Your task to perform on an android device: Add logitech g933 to the cart on target.com, then select checkout. Image 0: 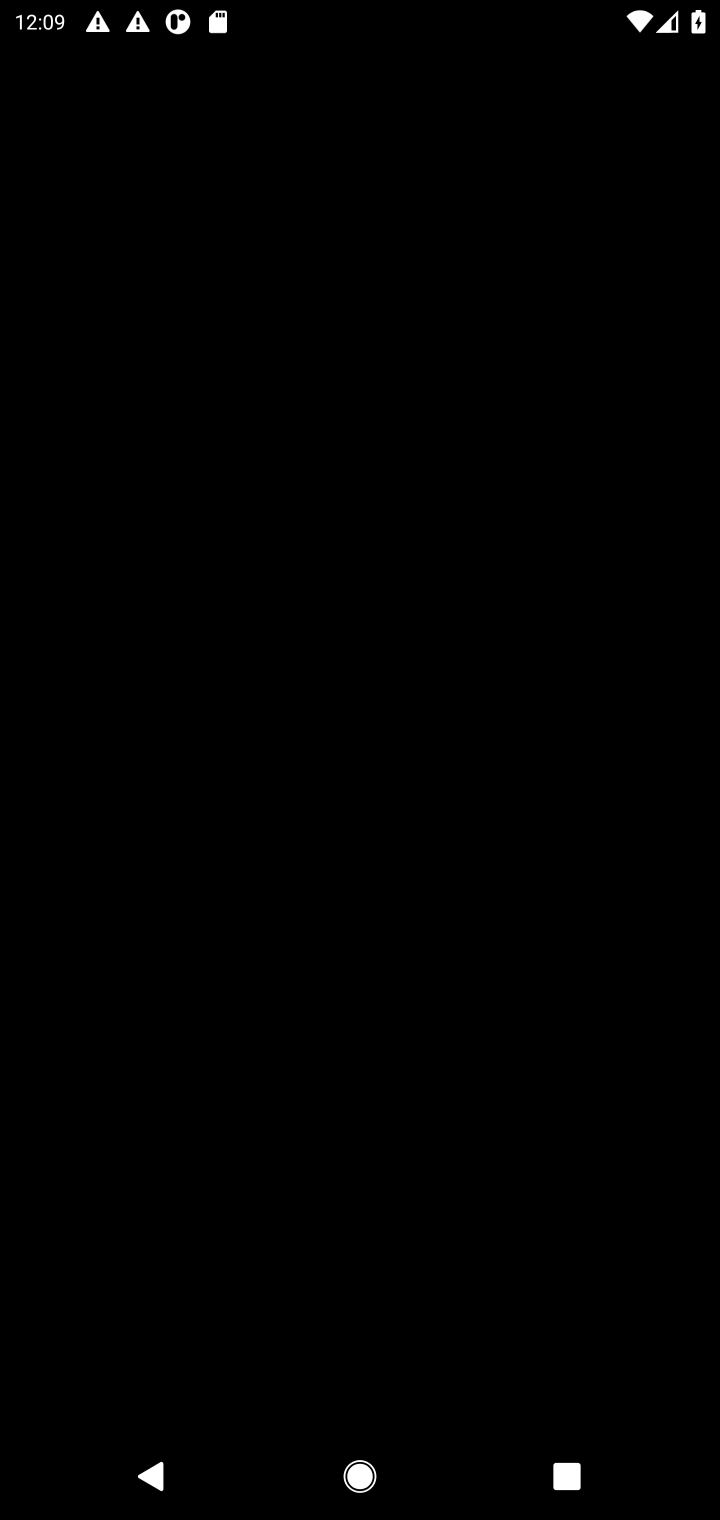
Step 0: press home button
Your task to perform on an android device: Add logitech g933 to the cart on target.com, then select checkout. Image 1: 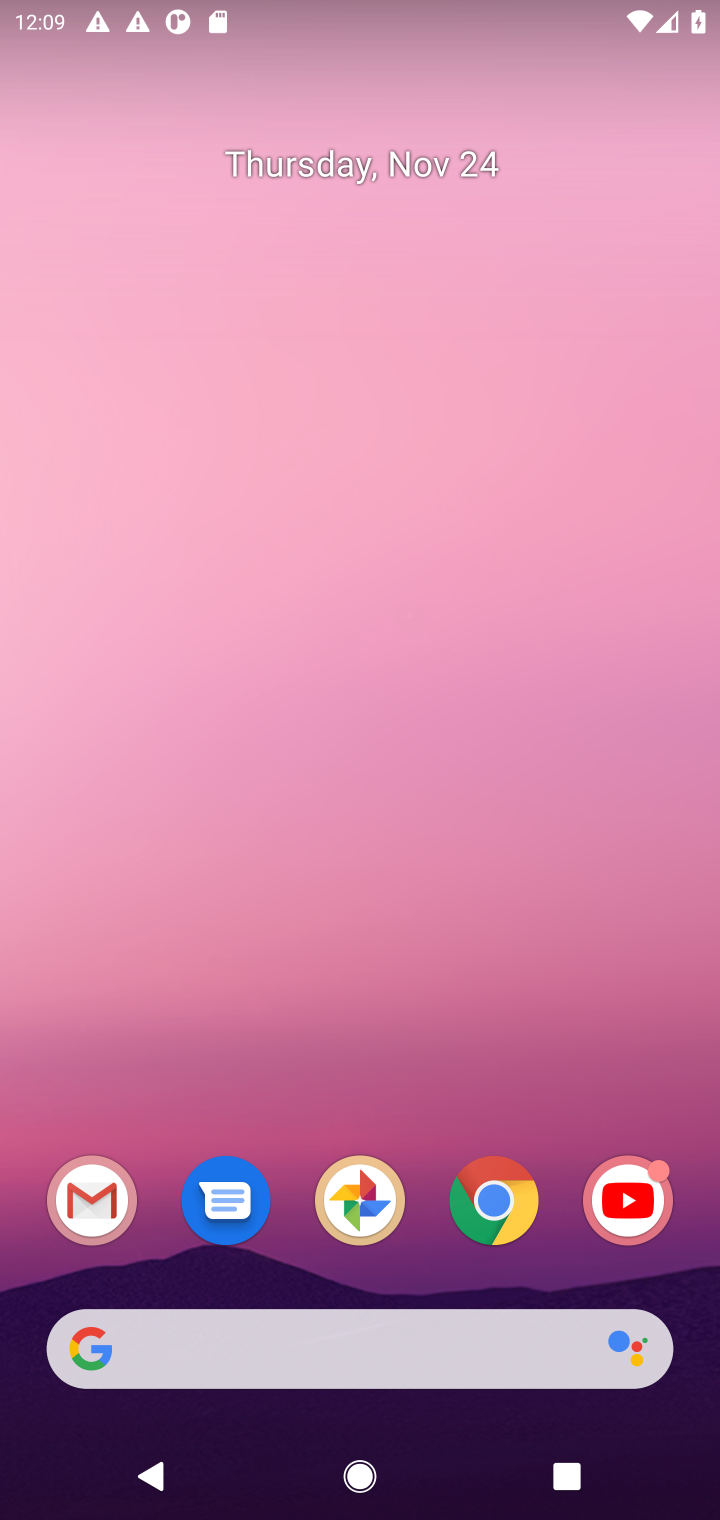
Step 1: click (469, 1358)
Your task to perform on an android device: Add logitech g933 to the cart on target.com, then select checkout. Image 2: 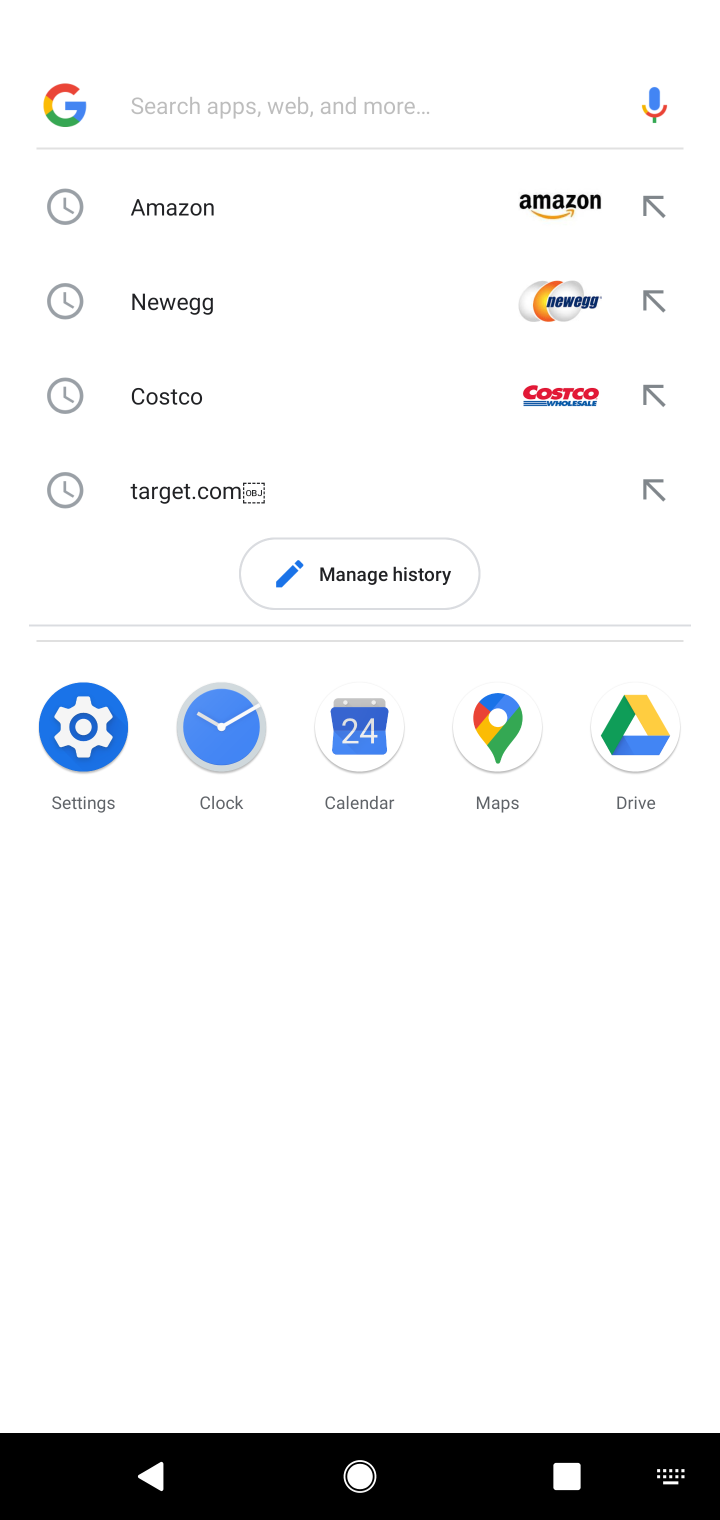
Step 2: click (217, 499)
Your task to perform on an android device: Add logitech g933 to the cart on target.com, then select checkout. Image 3: 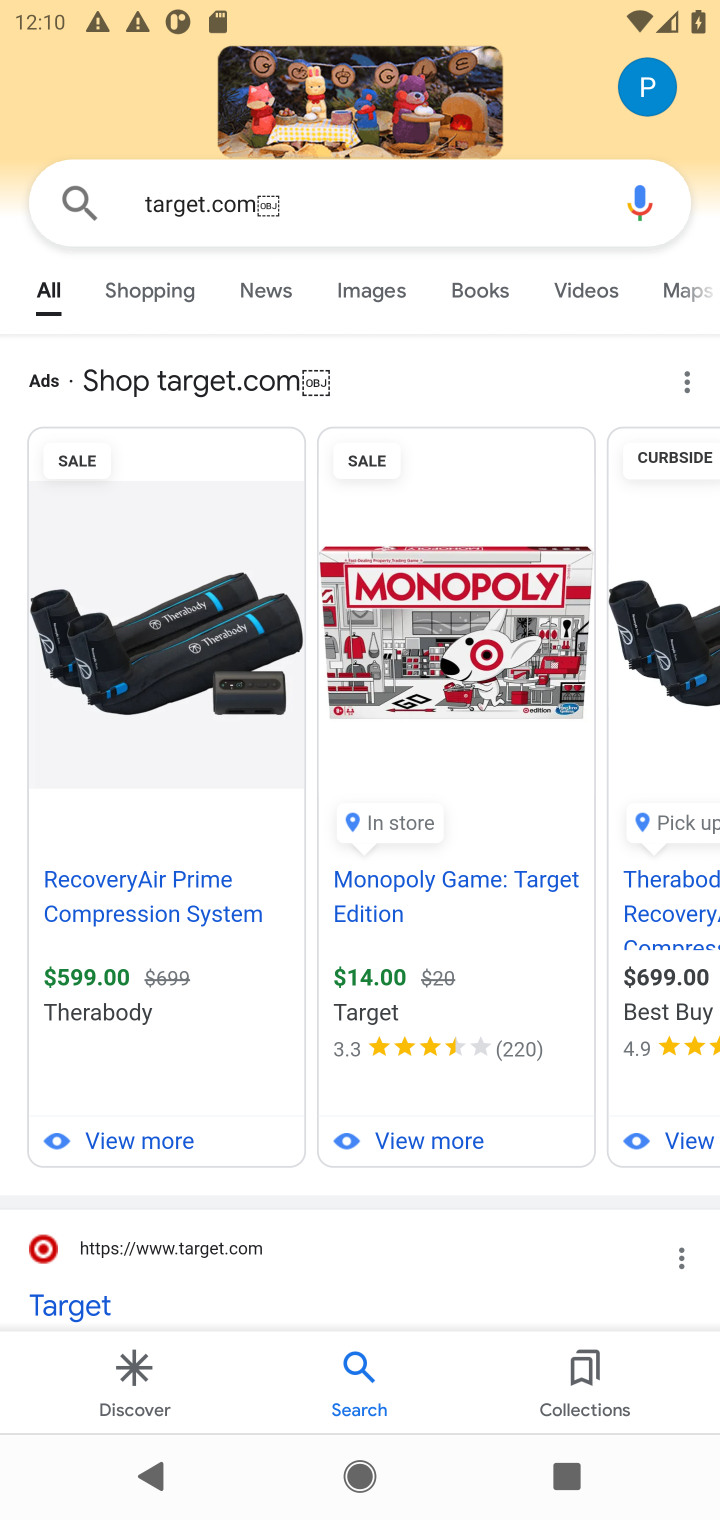
Step 3: click (104, 1292)
Your task to perform on an android device: Add logitech g933 to the cart on target.com, then select checkout. Image 4: 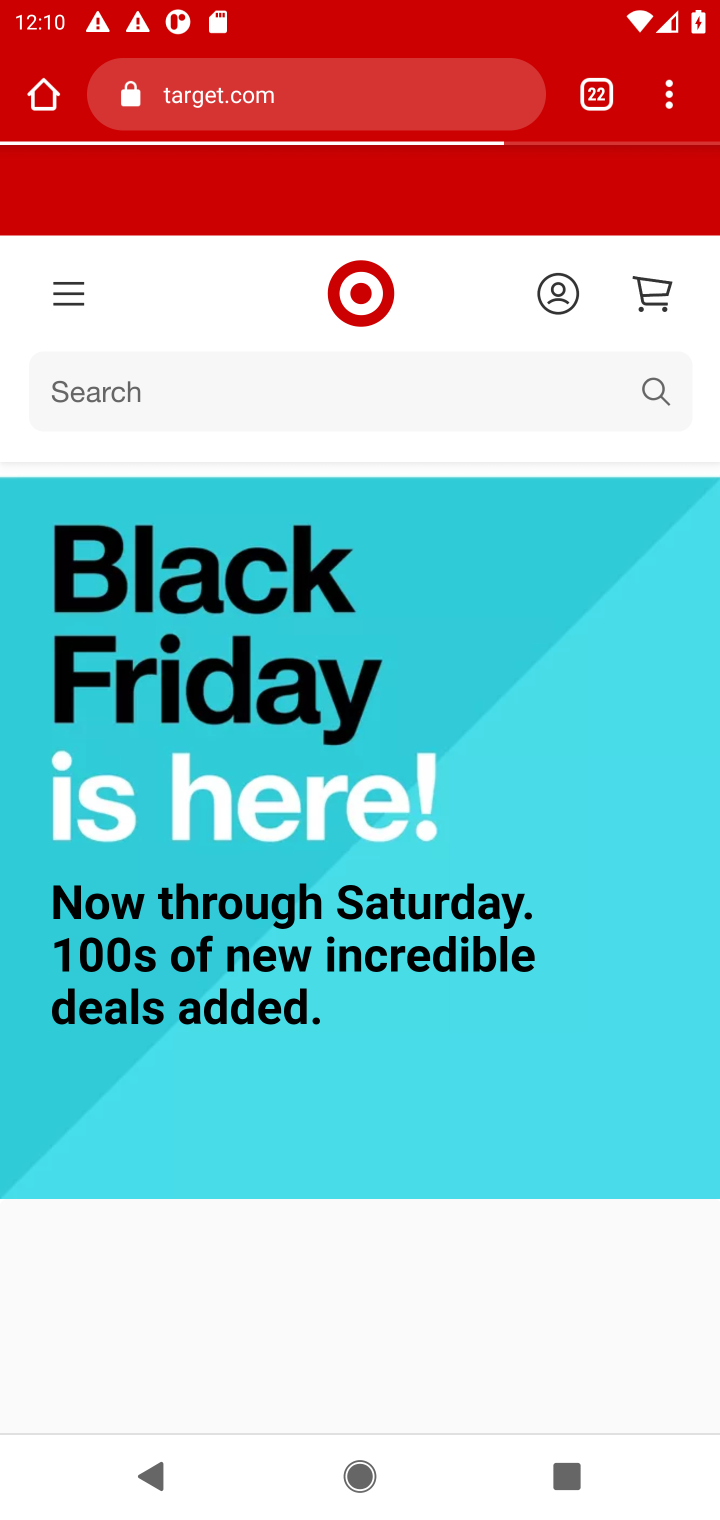
Step 4: click (468, 389)
Your task to perform on an android device: Add logitech g933 to the cart on target.com, then select checkout. Image 5: 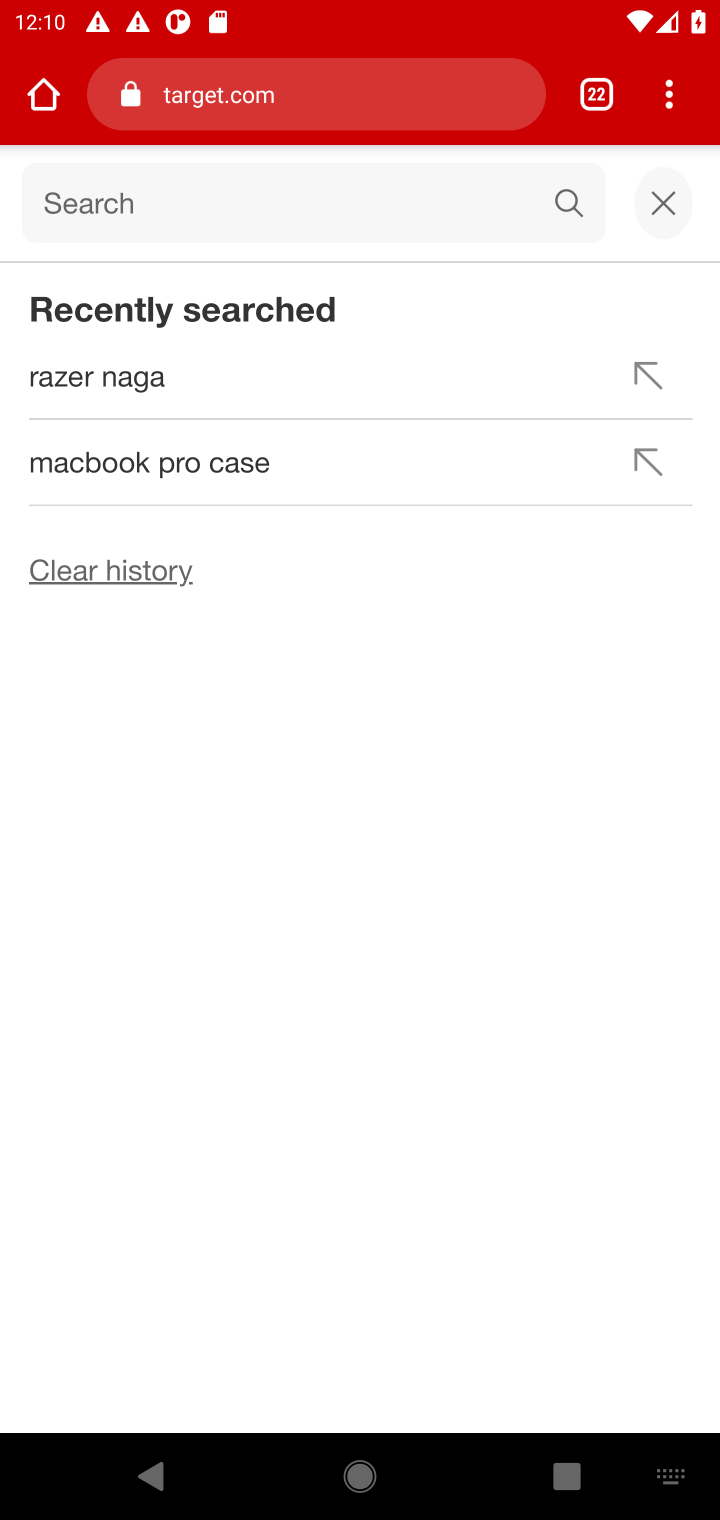
Step 5: type "logitech g933"
Your task to perform on an android device: Add logitech g933 to the cart on target.com, then select checkout. Image 6: 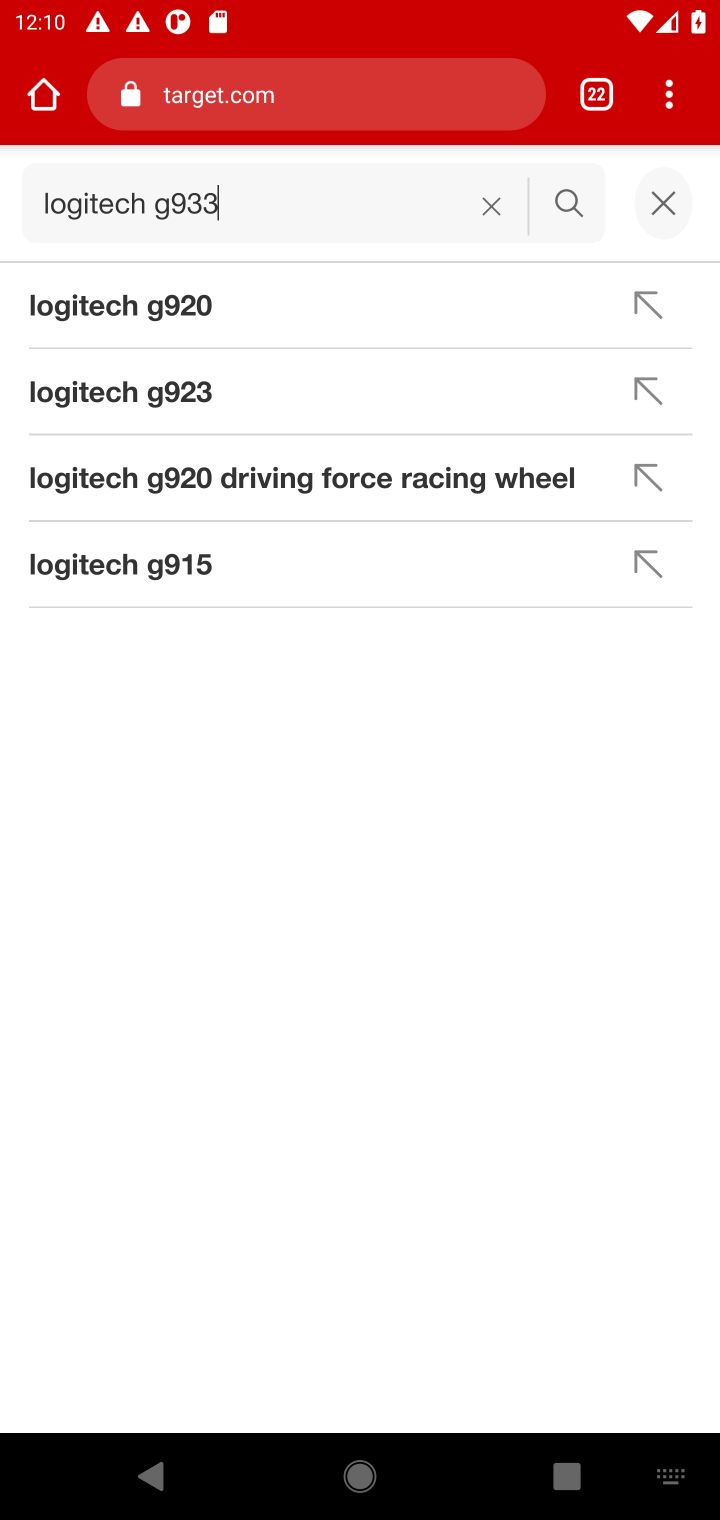
Step 6: click (546, 206)
Your task to perform on an android device: Add logitech g933 to the cart on target.com, then select checkout. Image 7: 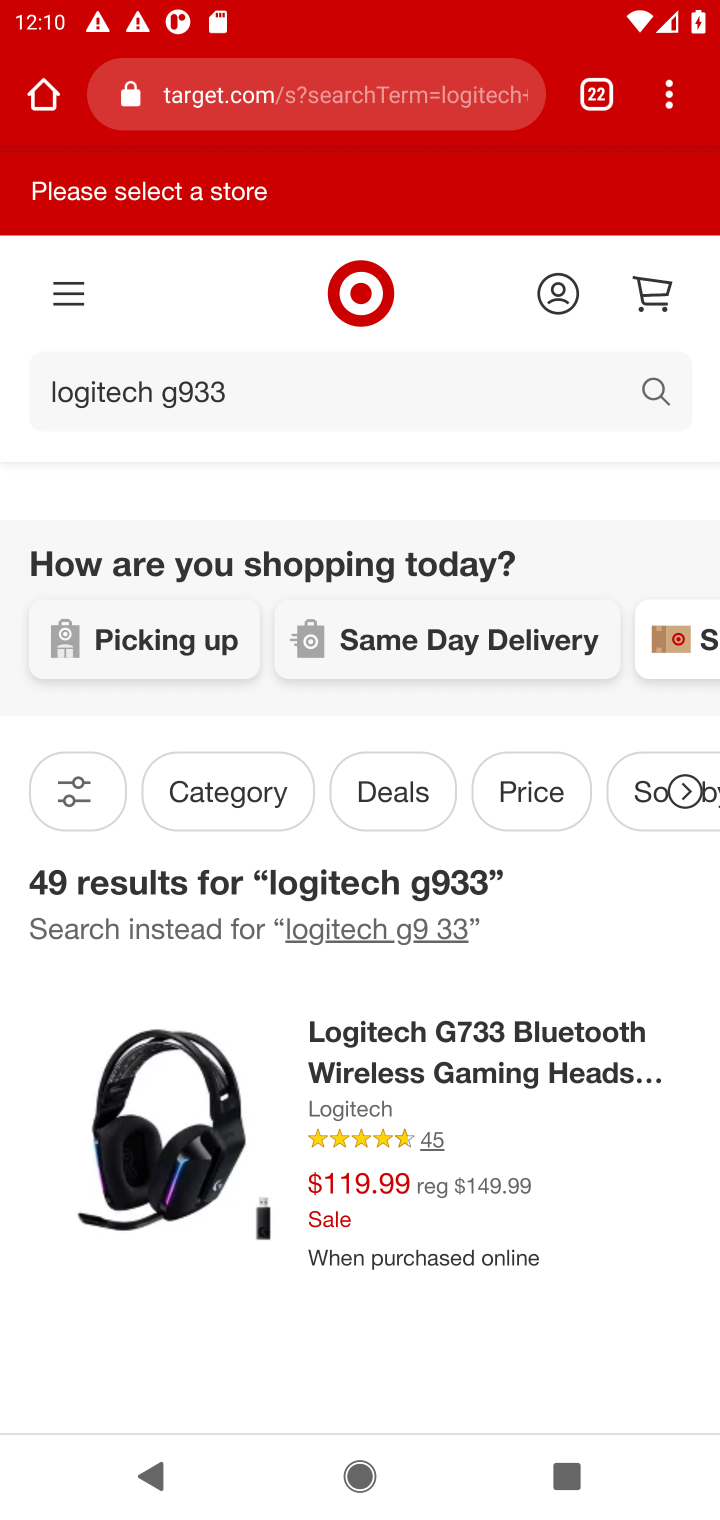
Step 7: click (449, 1026)
Your task to perform on an android device: Add logitech g933 to the cart on target.com, then select checkout. Image 8: 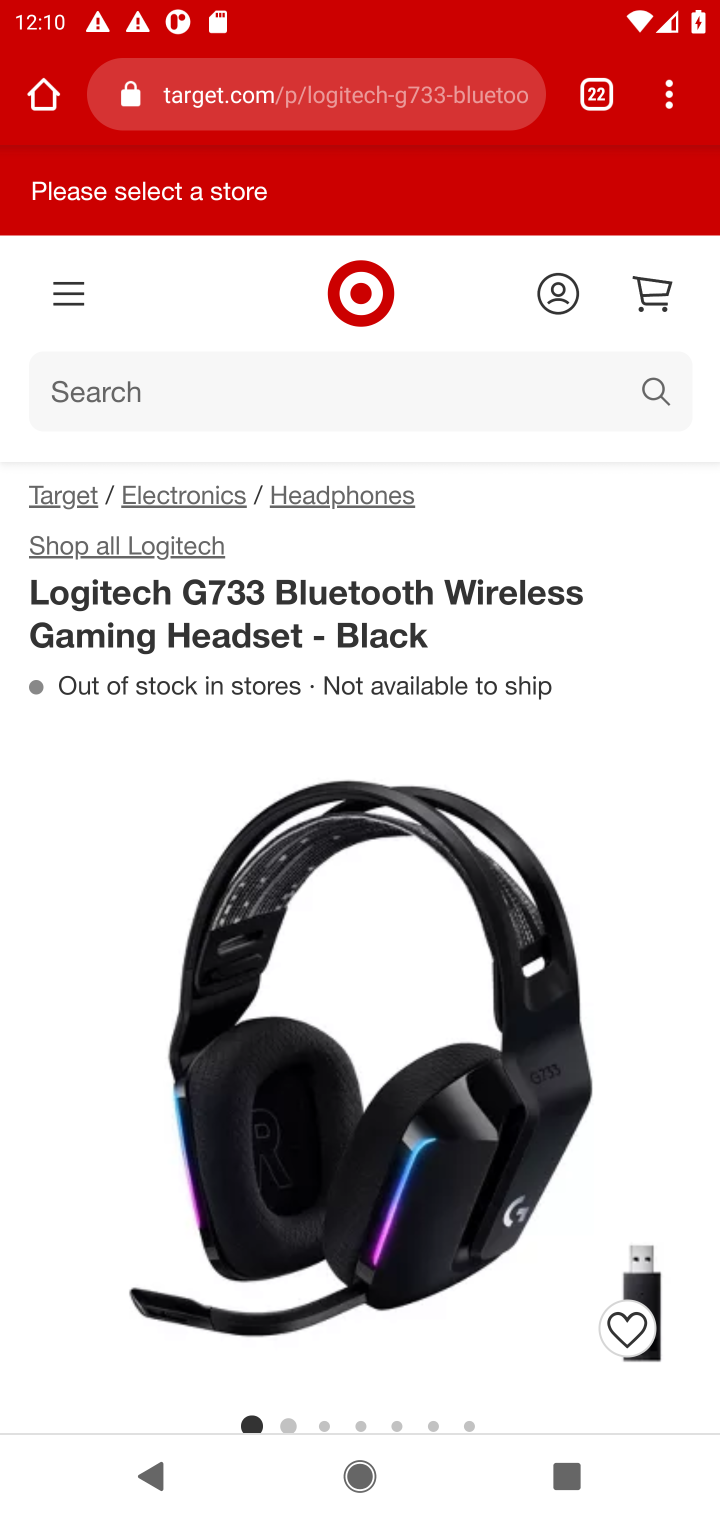
Step 8: drag from (273, 1224) to (268, 464)
Your task to perform on an android device: Add logitech g933 to the cart on target.com, then select checkout. Image 9: 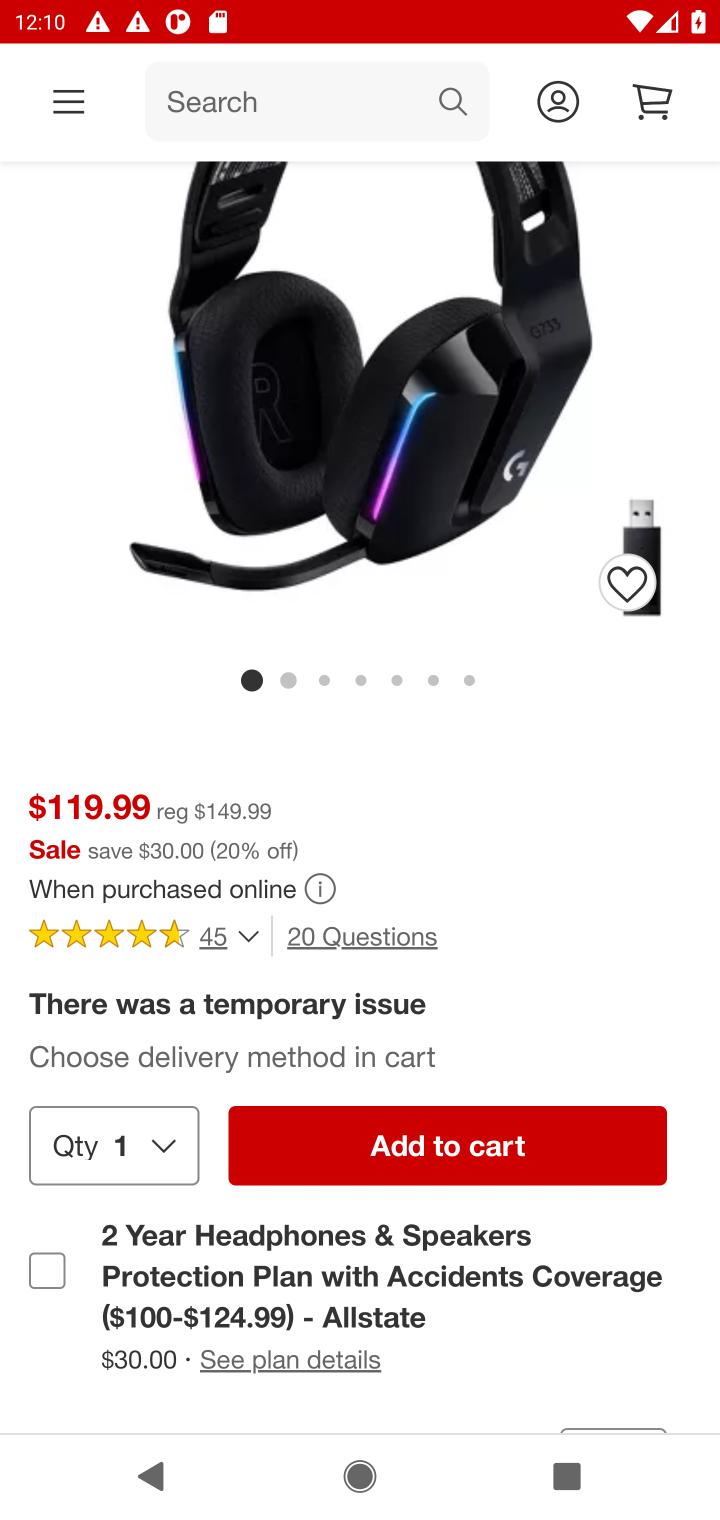
Step 9: click (454, 1186)
Your task to perform on an android device: Add logitech g933 to the cart on target.com, then select checkout. Image 10: 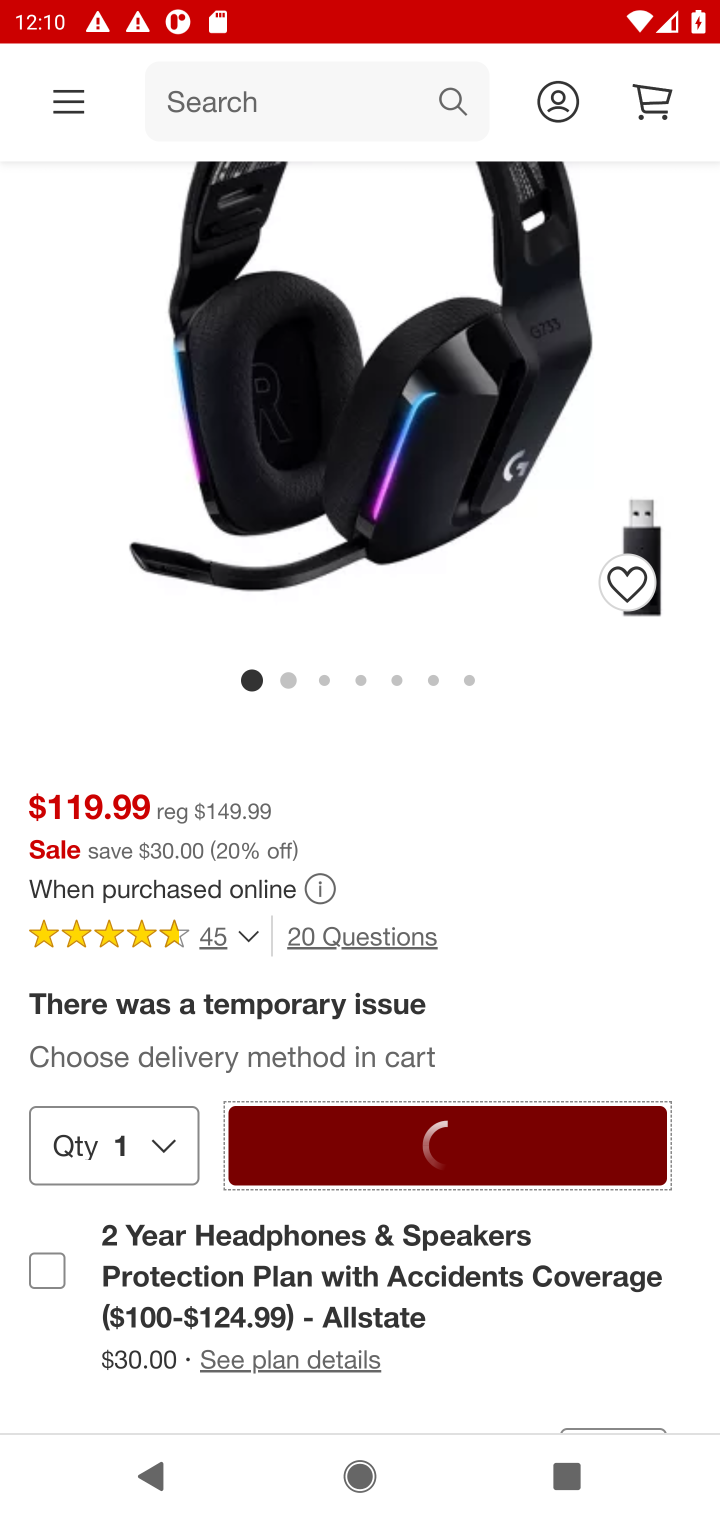
Step 10: task complete